Your task to perform on an android device: toggle show notifications on the lock screen Image 0: 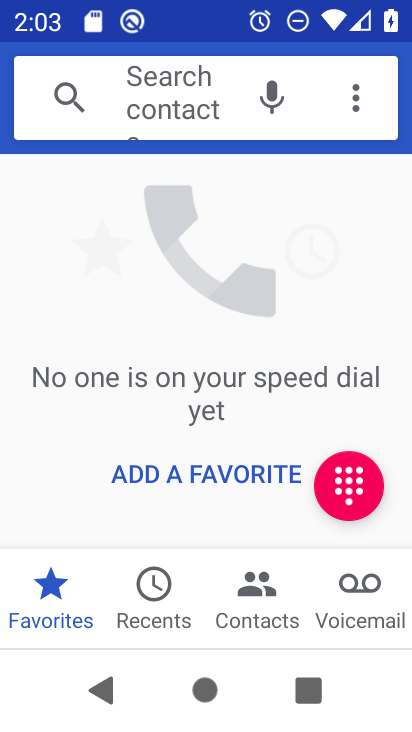
Step 0: press home button
Your task to perform on an android device: toggle show notifications on the lock screen Image 1: 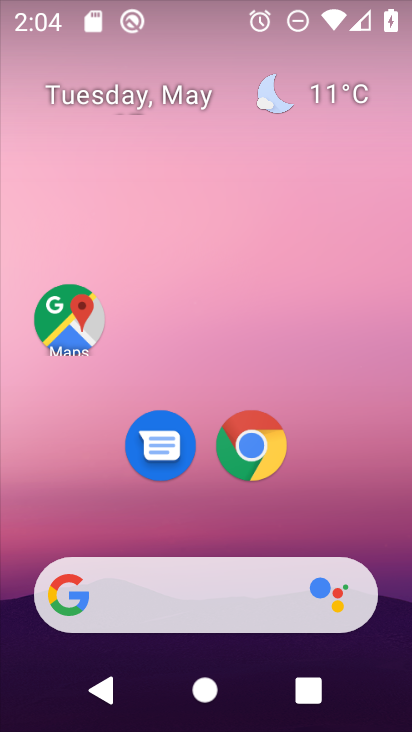
Step 1: drag from (381, 522) to (327, 107)
Your task to perform on an android device: toggle show notifications on the lock screen Image 2: 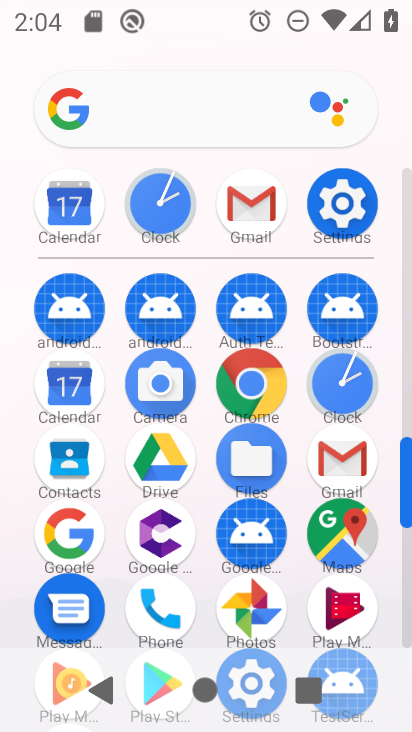
Step 2: drag from (206, 578) to (190, 329)
Your task to perform on an android device: toggle show notifications on the lock screen Image 3: 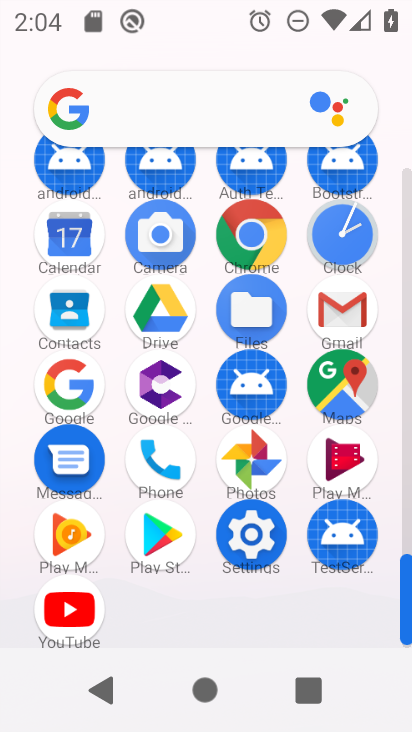
Step 3: click (263, 551)
Your task to perform on an android device: toggle show notifications on the lock screen Image 4: 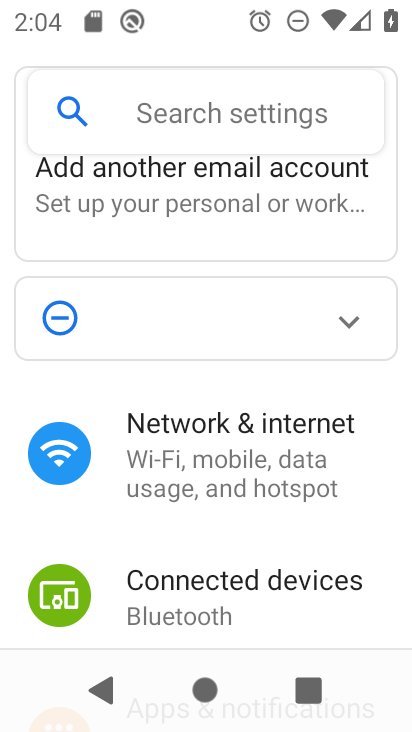
Step 4: drag from (215, 583) to (194, 450)
Your task to perform on an android device: toggle show notifications on the lock screen Image 5: 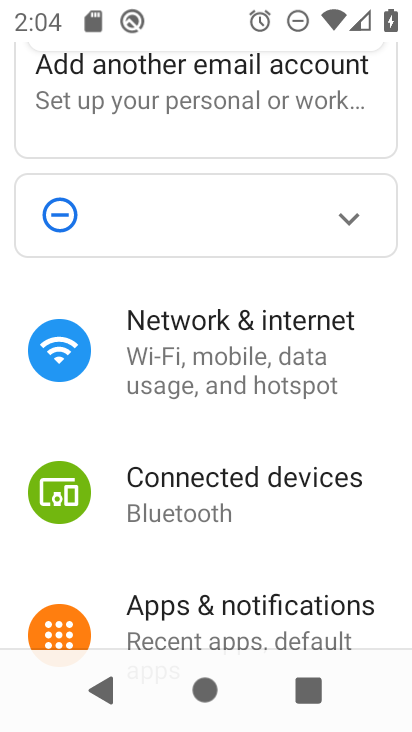
Step 5: click (206, 605)
Your task to perform on an android device: toggle show notifications on the lock screen Image 6: 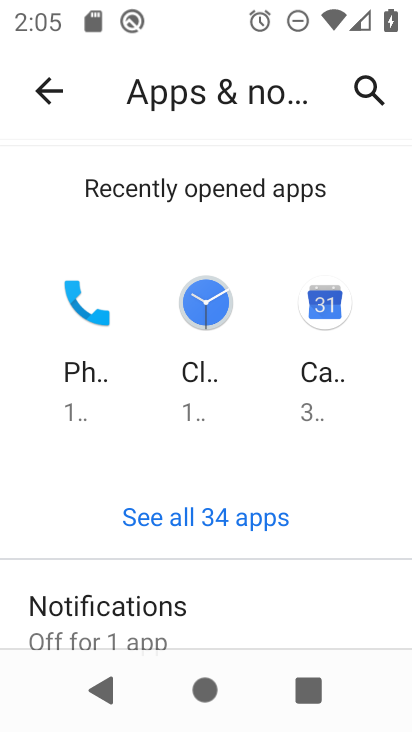
Step 6: drag from (185, 565) to (142, 409)
Your task to perform on an android device: toggle show notifications on the lock screen Image 7: 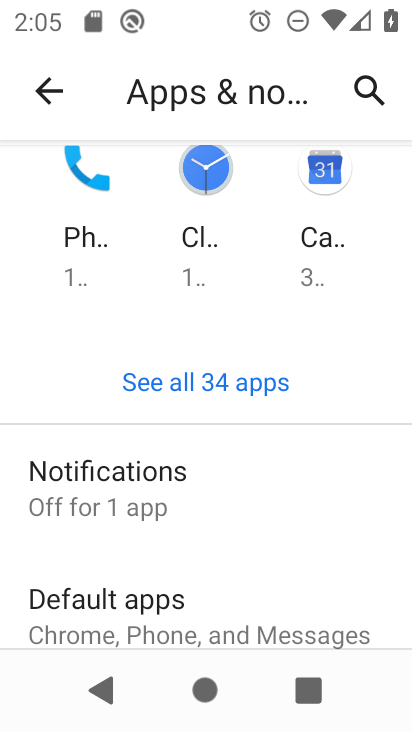
Step 7: click (125, 501)
Your task to perform on an android device: toggle show notifications on the lock screen Image 8: 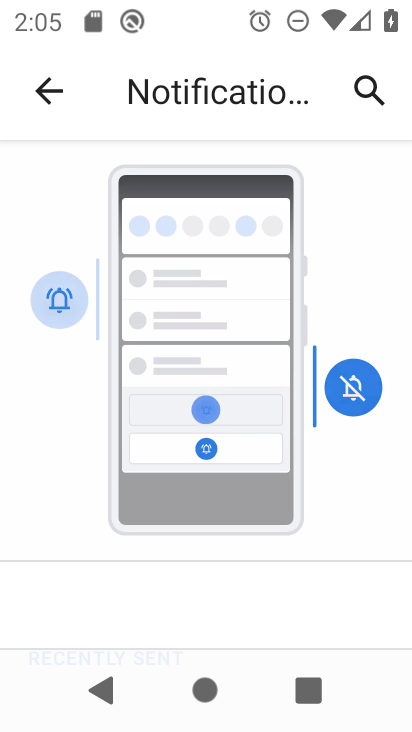
Step 8: drag from (179, 572) to (187, 104)
Your task to perform on an android device: toggle show notifications on the lock screen Image 9: 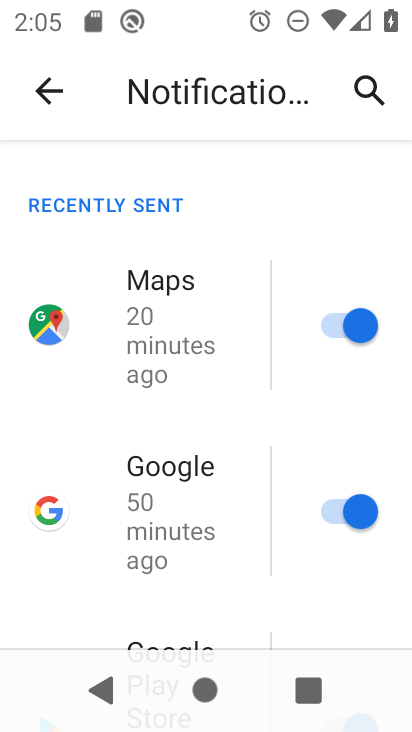
Step 9: drag from (223, 609) to (211, 250)
Your task to perform on an android device: toggle show notifications on the lock screen Image 10: 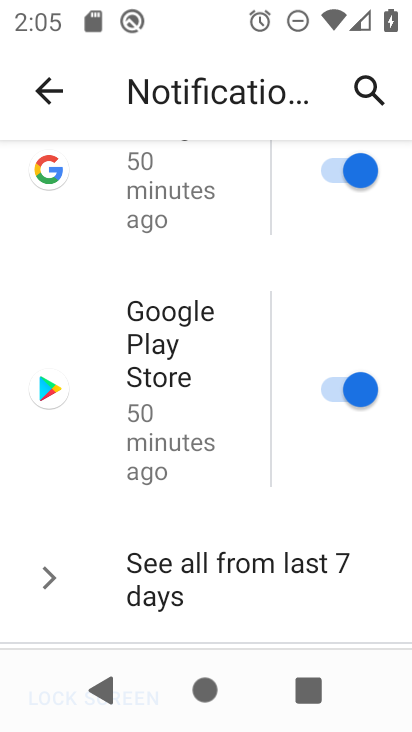
Step 10: drag from (239, 617) to (224, 207)
Your task to perform on an android device: toggle show notifications on the lock screen Image 11: 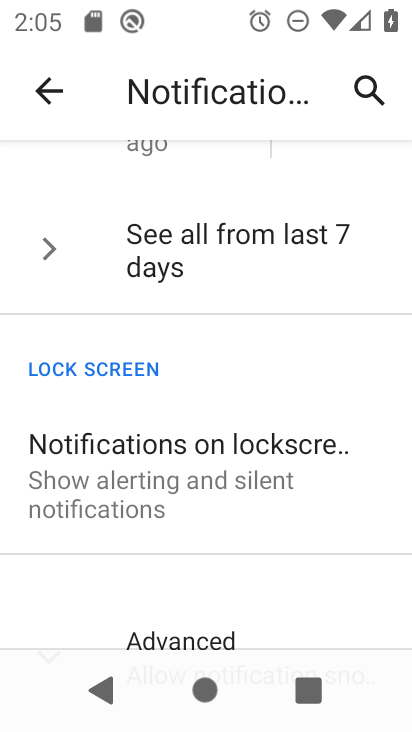
Step 11: click (214, 517)
Your task to perform on an android device: toggle show notifications on the lock screen Image 12: 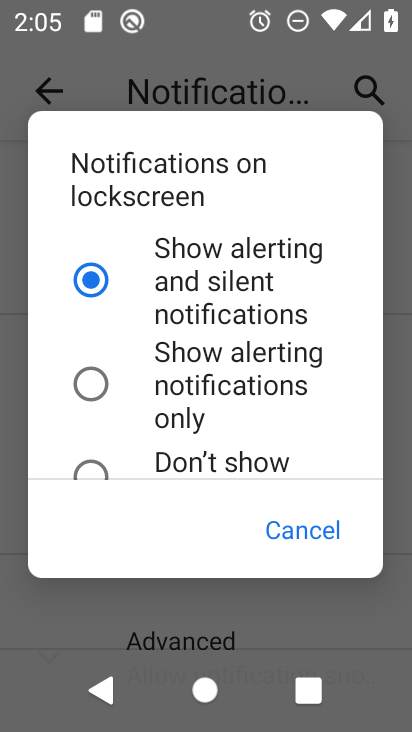
Step 12: click (237, 463)
Your task to perform on an android device: toggle show notifications on the lock screen Image 13: 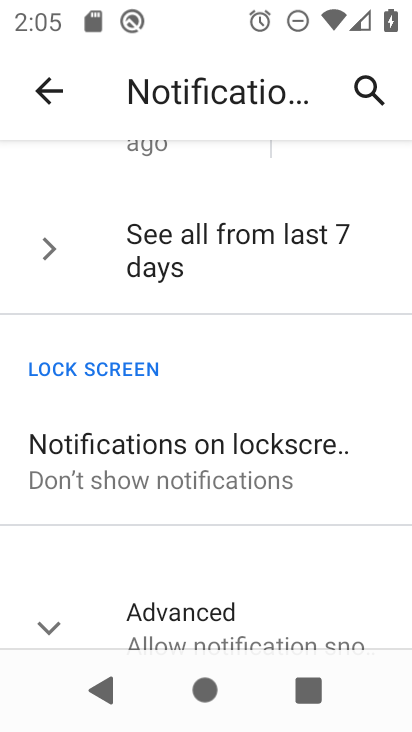
Step 13: task complete